Your task to perform on an android device: move a message to another label in the gmail app Image 0: 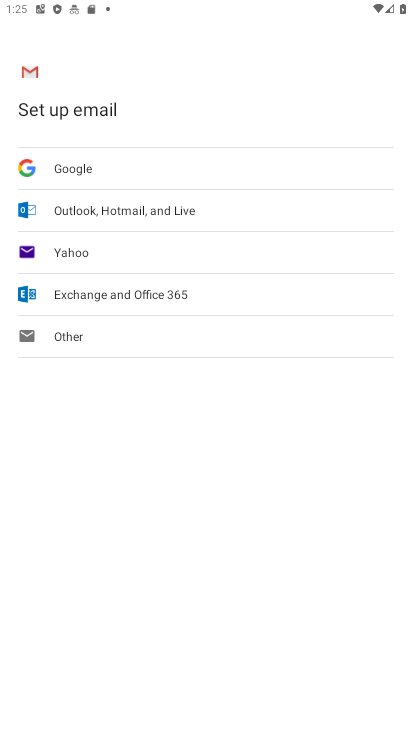
Step 0: press home button
Your task to perform on an android device: move a message to another label in the gmail app Image 1: 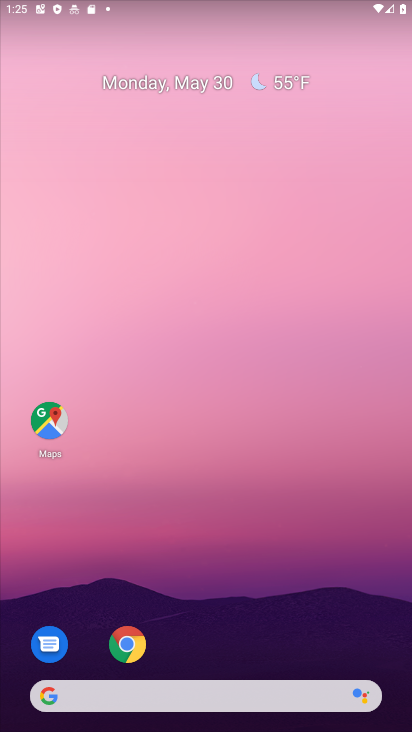
Step 1: drag from (294, 620) to (294, 184)
Your task to perform on an android device: move a message to another label in the gmail app Image 2: 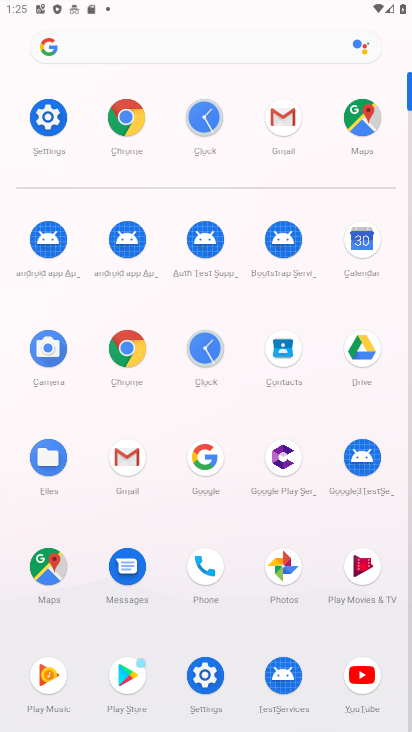
Step 2: click (291, 155)
Your task to perform on an android device: move a message to another label in the gmail app Image 3: 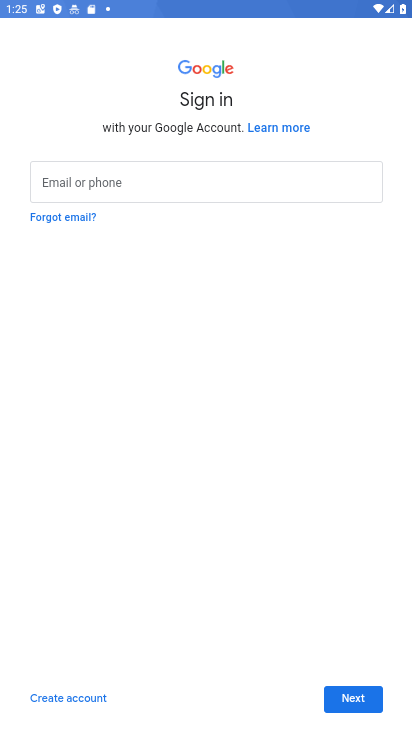
Step 3: task complete